Your task to perform on an android device: Show me popular videos on Youtube Image 0: 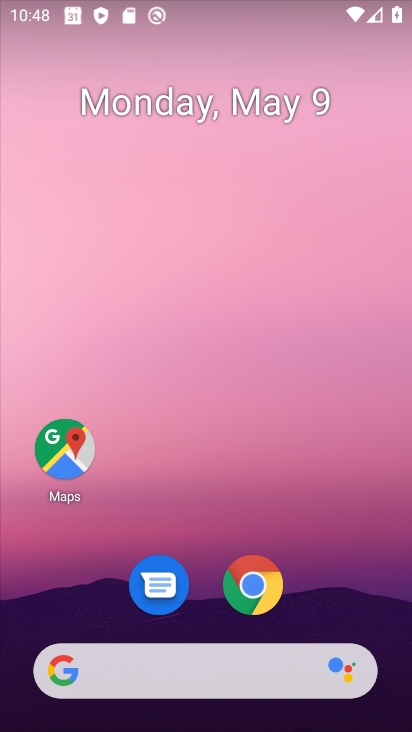
Step 0: drag from (260, 511) to (330, 32)
Your task to perform on an android device: Show me popular videos on Youtube Image 1: 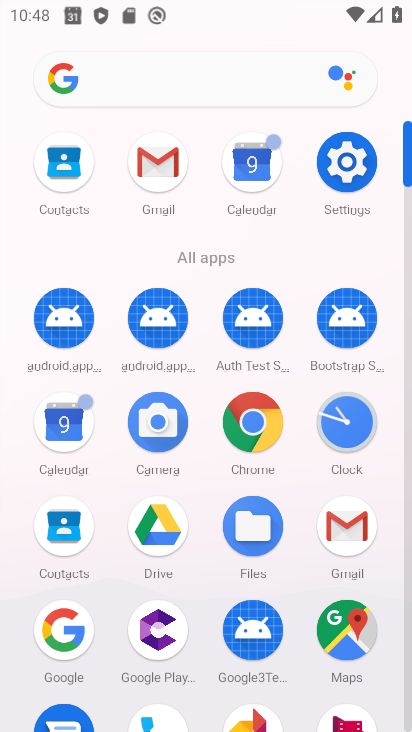
Step 1: drag from (276, 563) to (322, 196)
Your task to perform on an android device: Show me popular videos on Youtube Image 2: 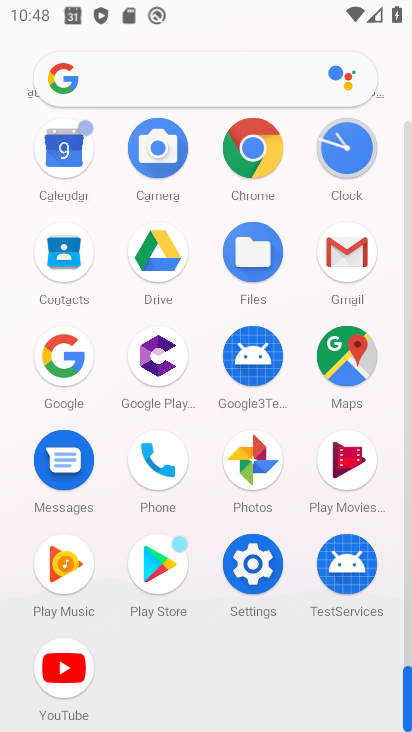
Step 2: click (66, 665)
Your task to perform on an android device: Show me popular videos on Youtube Image 3: 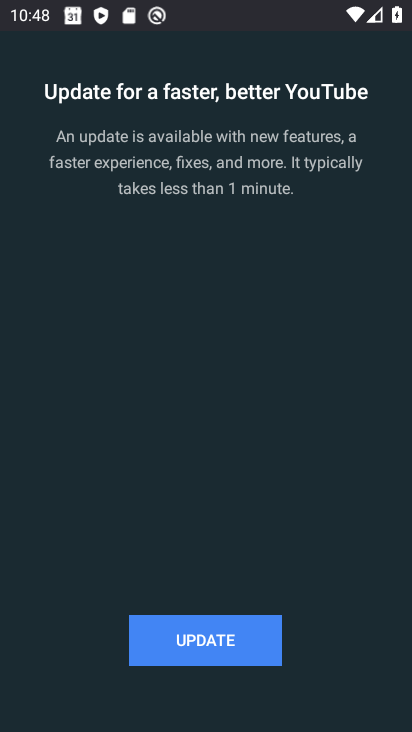
Step 3: click (222, 640)
Your task to perform on an android device: Show me popular videos on Youtube Image 4: 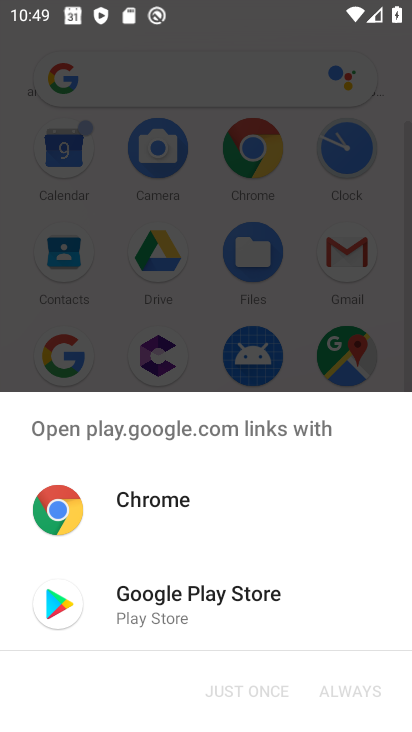
Step 4: click (152, 589)
Your task to perform on an android device: Show me popular videos on Youtube Image 5: 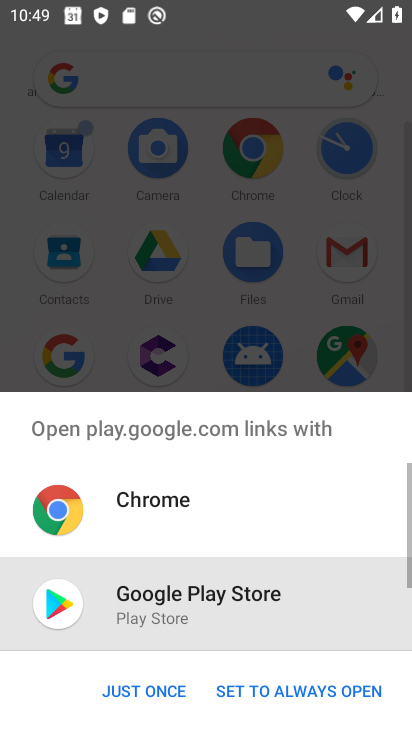
Step 5: click (157, 687)
Your task to perform on an android device: Show me popular videos on Youtube Image 6: 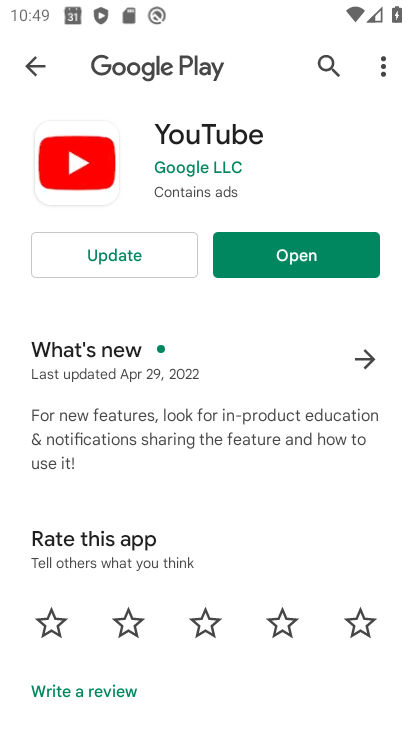
Step 6: click (144, 249)
Your task to perform on an android device: Show me popular videos on Youtube Image 7: 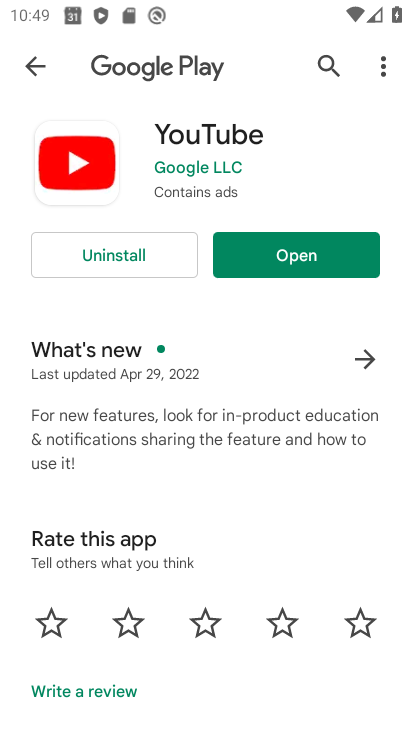
Step 7: click (357, 234)
Your task to perform on an android device: Show me popular videos on Youtube Image 8: 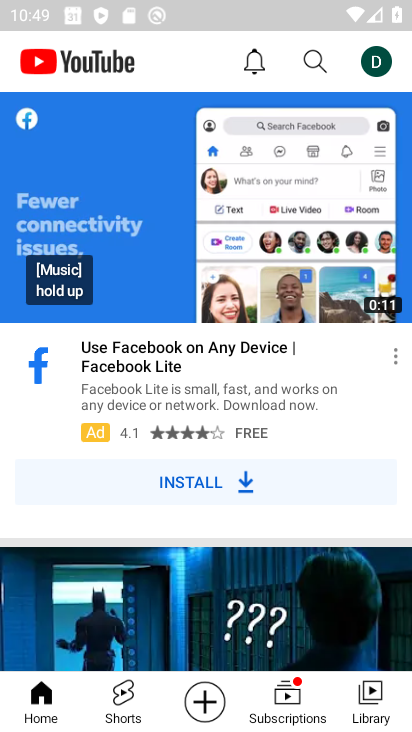
Step 8: click (123, 699)
Your task to perform on an android device: Show me popular videos on Youtube Image 9: 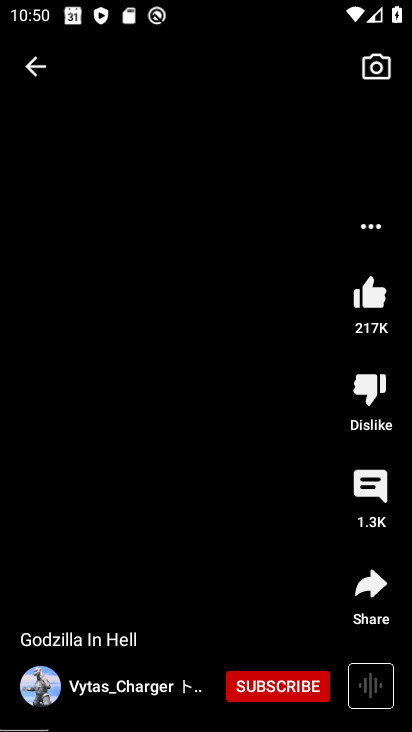
Step 9: click (37, 60)
Your task to perform on an android device: Show me popular videos on Youtube Image 10: 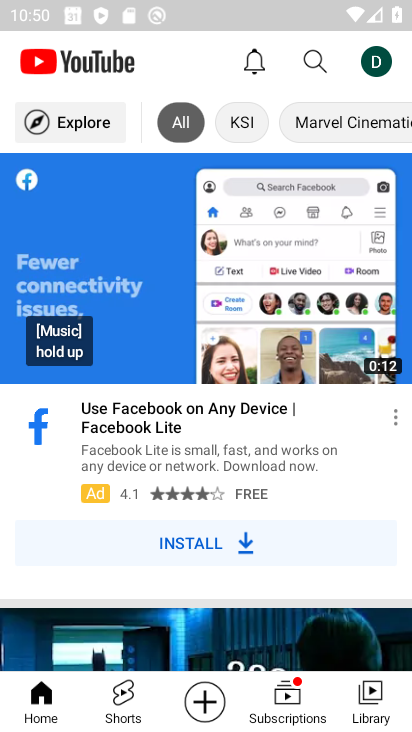
Step 10: click (310, 58)
Your task to perform on an android device: Show me popular videos on Youtube Image 11: 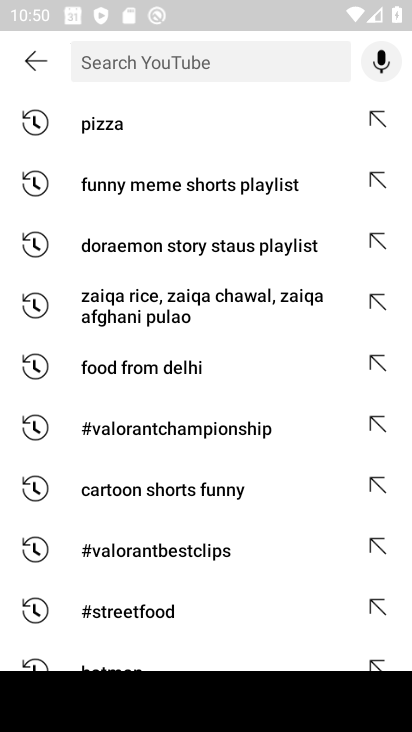
Step 11: type "popular videos"
Your task to perform on an android device: Show me popular videos on Youtube Image 12: 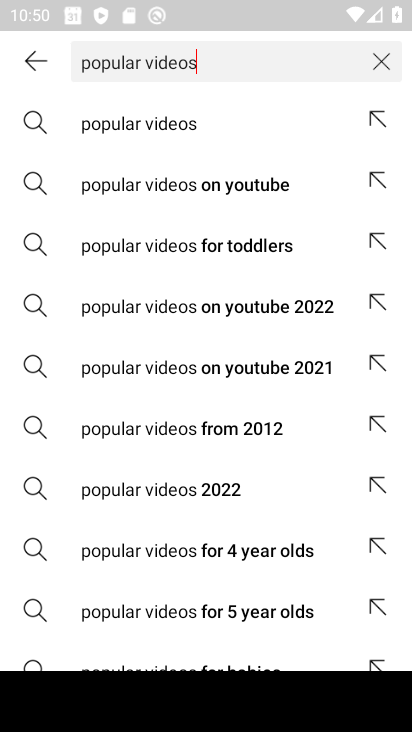
Step 12: click (272, 174)
Your task to perform on an android device: Show me popular videos on Youtube Image 13: 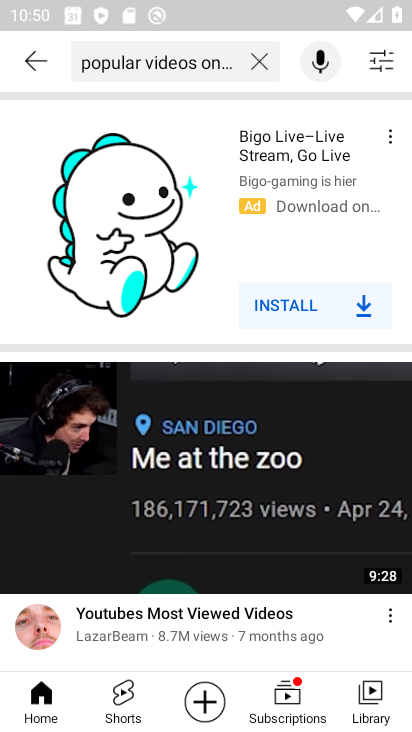
Step 13: task complete